Your task to perform on an android device: Search for pizza restaurants on Maps Image 0: 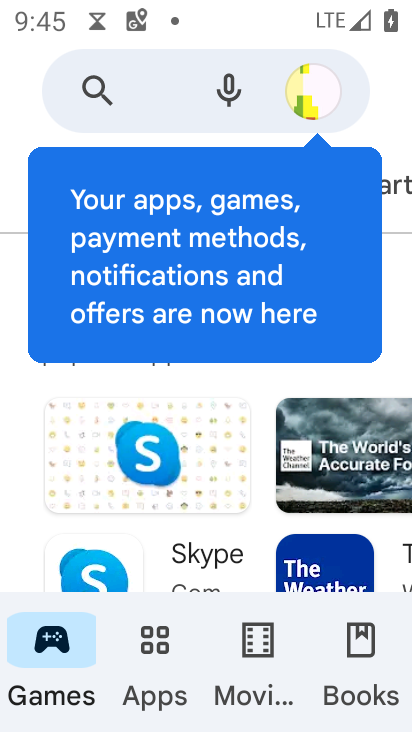
Step 0: press back button
Your task to perform on an android device: Search for pizza restaurants on Maps Image 1: 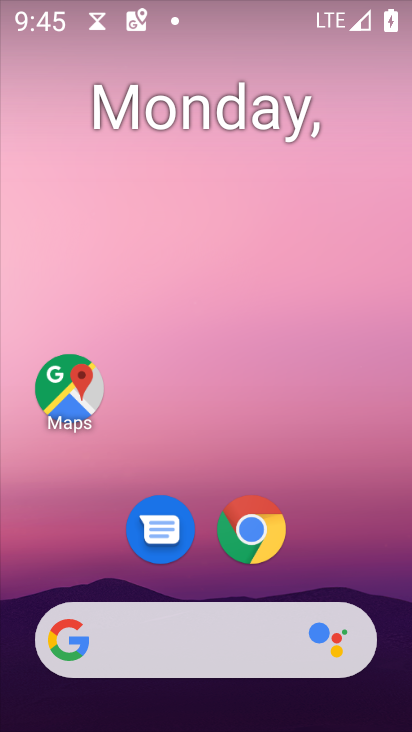
Step 1: drag from (286, 657) to (224, 180)
Your task to perform on an android device: Search for pizza restaurants on Maps Image 2: 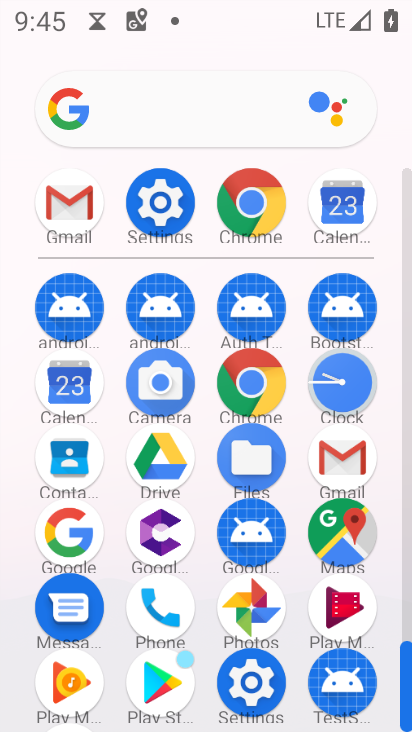
Step 2: click (359, 532)
Your task to perform on an android device: Search for pizza restaurants on Maps Image 3: 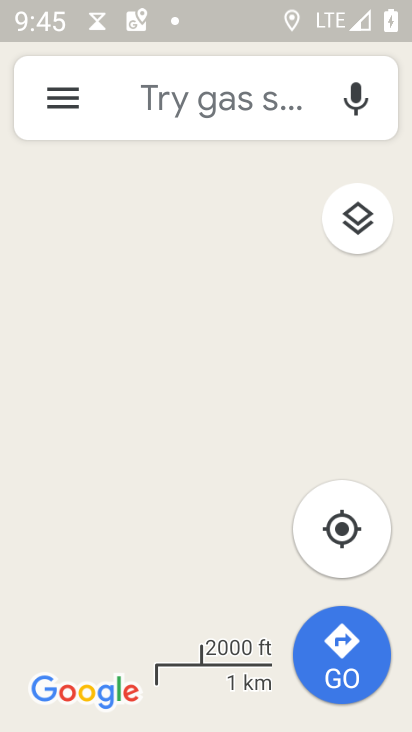
Step 3: click (166, 103)
Your task to perform on an android device: Search for pizza restaurants on Maps Image 4: 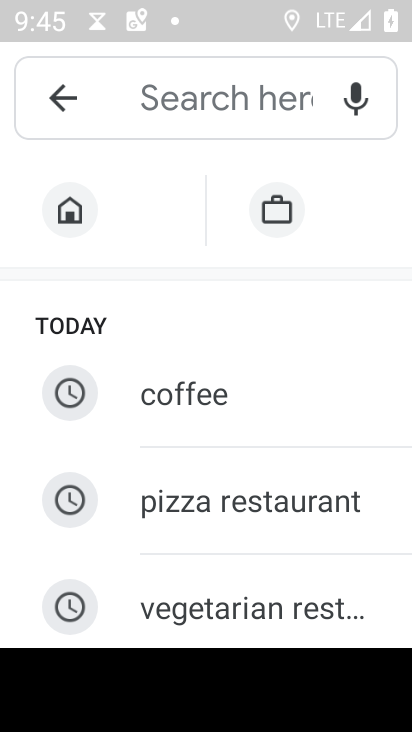
Step 4: click (221, 507)
Your task to perform on an android device: Search for pizza restaurants on Maps Image 5: 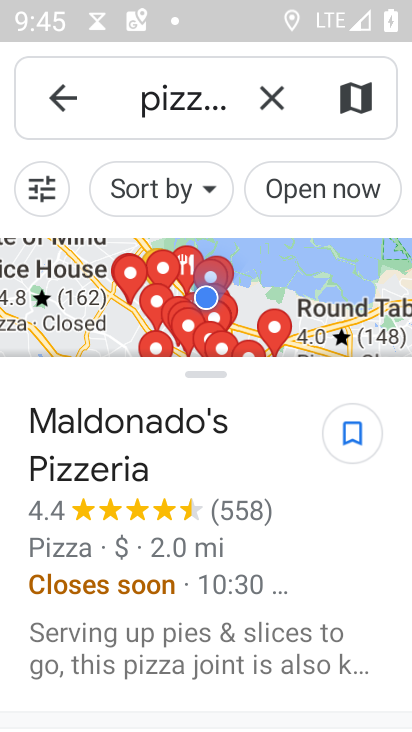
Step 5: task complete